Your task to perform on an android device: Go to location settings Image 0: 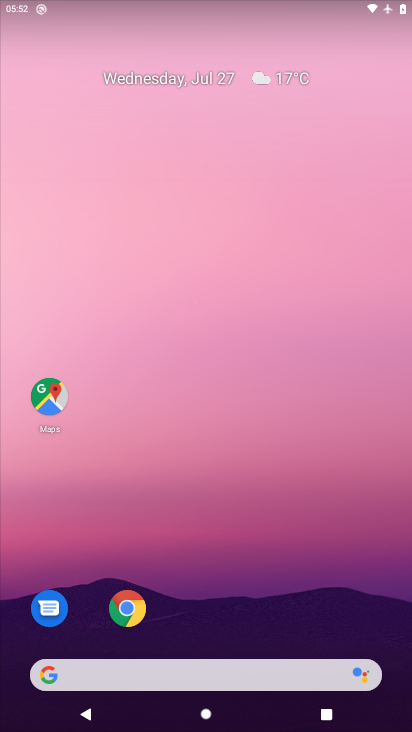
Step 0: press home button
Your task to perform on an android device: Go to location settings Image 1: 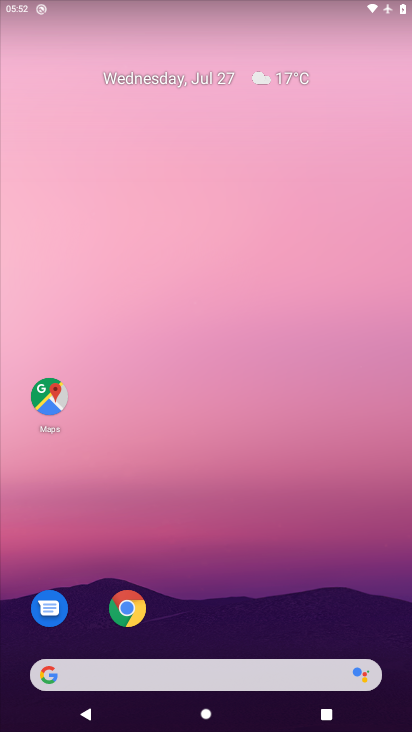
Step 1: drag from (281, 619) to (134, 5)
Your task to perform on an android device: Go to location settings Image 2: 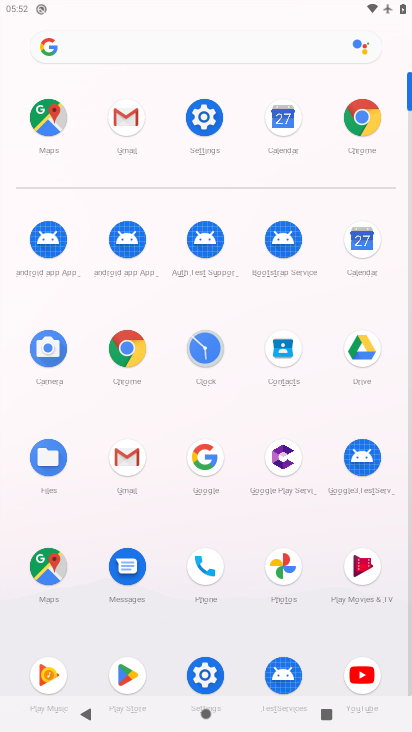
Step 2: click (196, 116)
Your task to perform on an android device: Go to location settings Image 3: 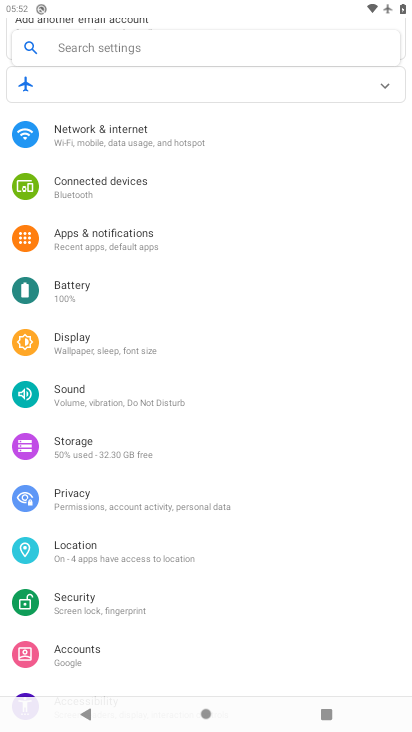
Step 3: click (77, 554)
Your task to perform on an android device: Go to location settings Image 4: 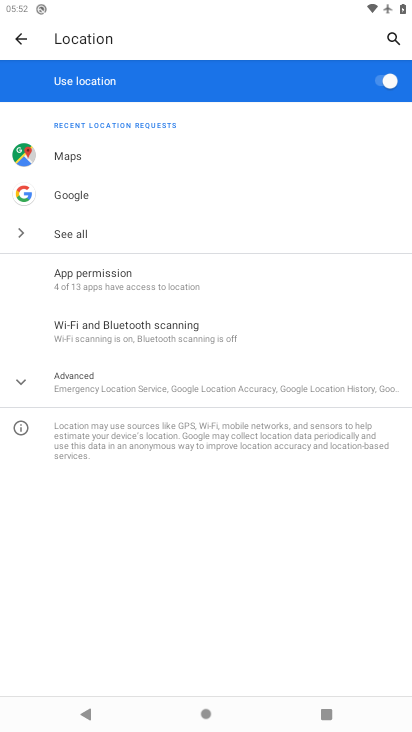
Step 4: task complete